Your task to perform on an android device: add a label to a message in the gmail app Image 0: 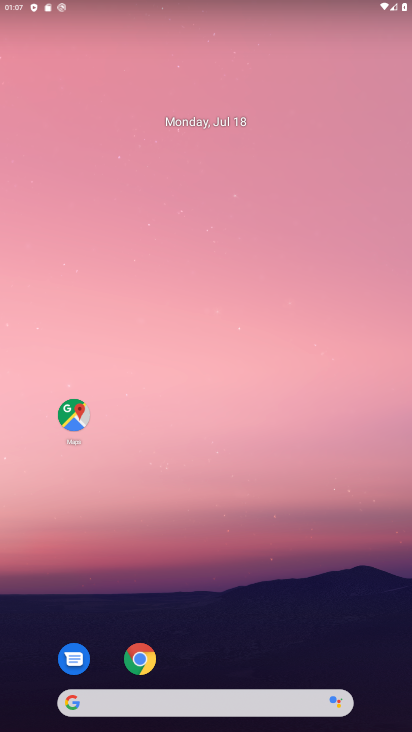
Step 0: drag from (236, 456) to (223, 60)
Your task to perform on an android device: add a label to a message in the gmail app Image 1: 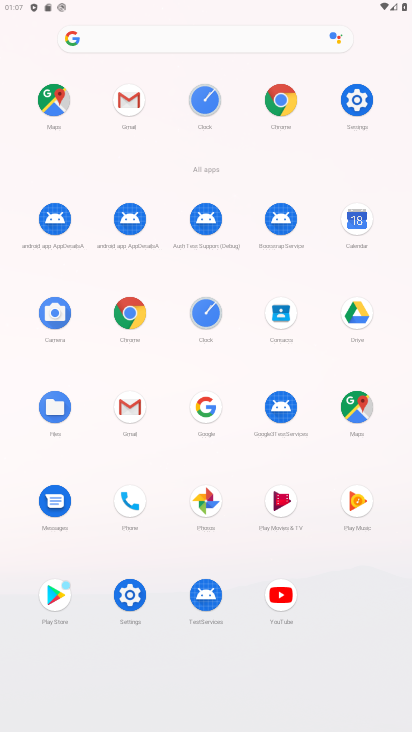
Step 1: click (120, 100)
Your task to perform on an android device: add a label to a message in the gmail app Image 2: 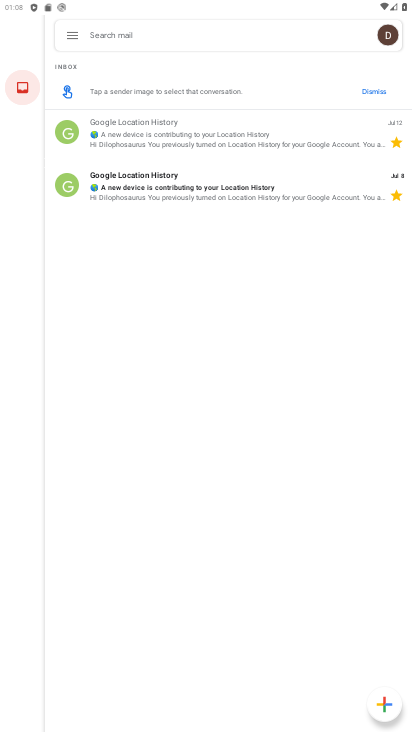
Step 2: click (249, 123)
Your task to perform on an android device: add a label to a message in the gmail app Image 3: 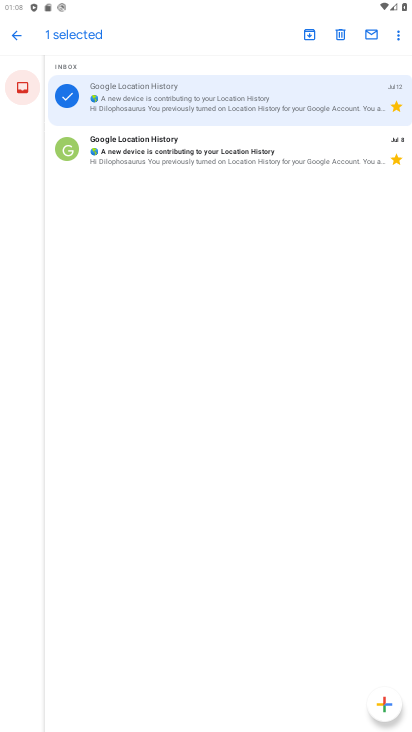
Step 3: click (396, 33)
Your task to perform on an android device: add a label to a message in the gmail app Image 4: 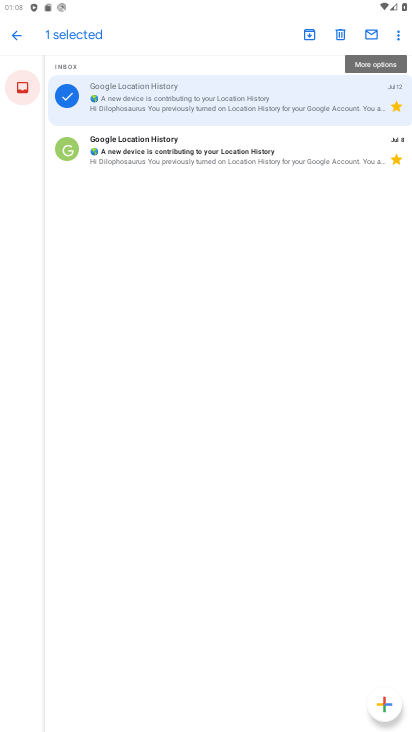
Step 4: click (396, 33)
Your task to perform on an android device: add a label to a message in the gmail app Image 5: 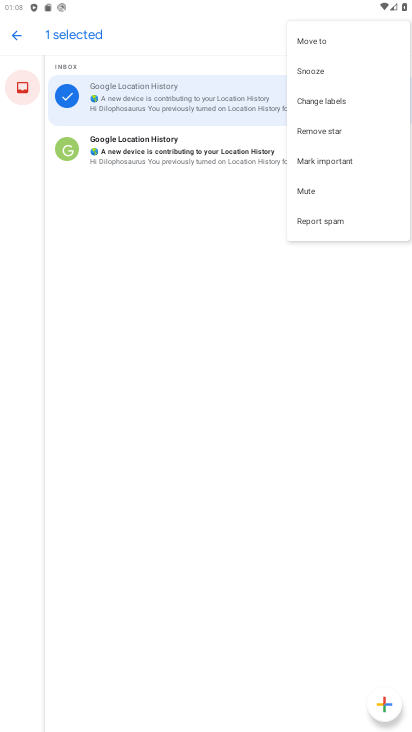
Step 5: task complete